Your task to perform on an android device: turn on wifi Image 0: 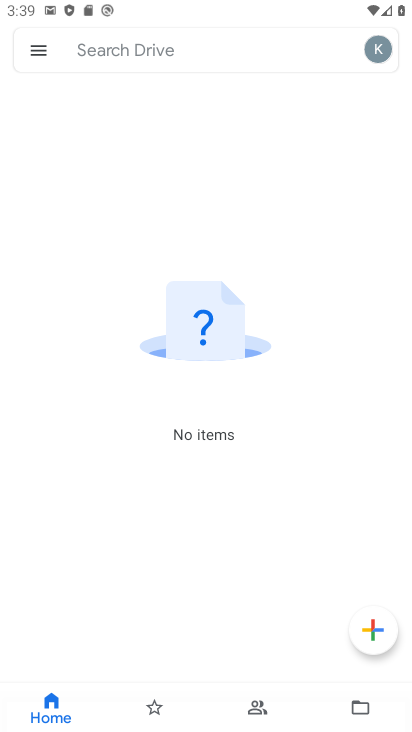
Step 0: press back button
Your task to perform on an android device: turn on wifi Image 1: 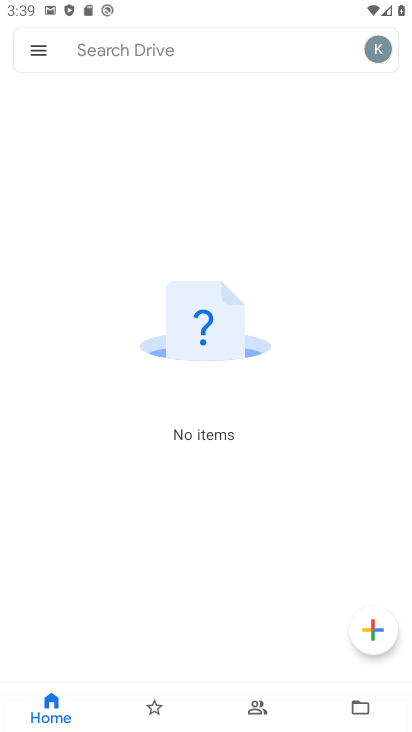
Step 1: press back button
Your task to perform on an android device: turn on wifi Image 2: 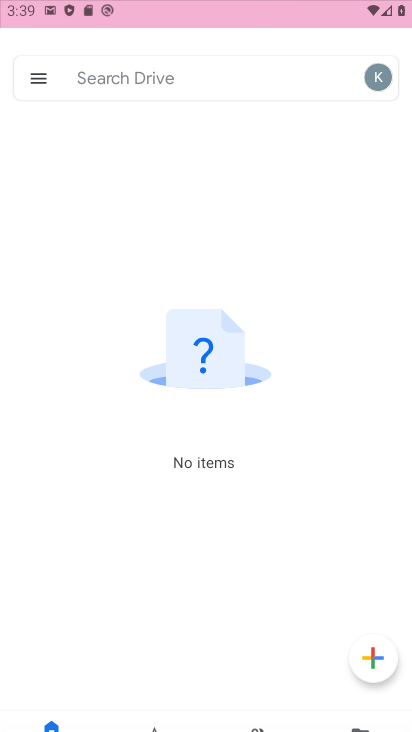
Step 2: press home button
Your task to perform on an android device: turn on wifi Image 3: 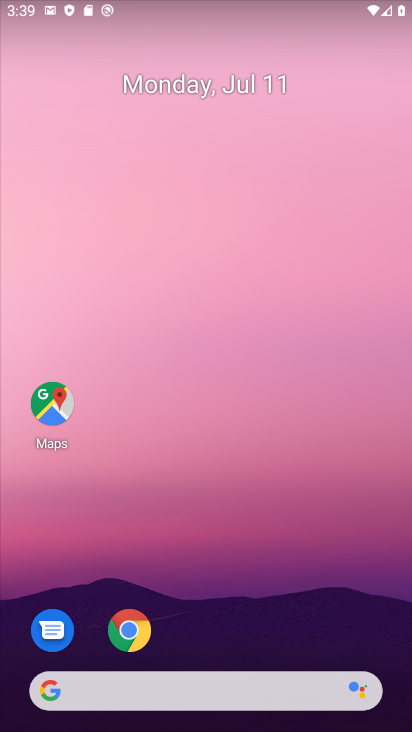
Step 3: press back button
Your task to perform on an android device: turn on wifi Image 4: 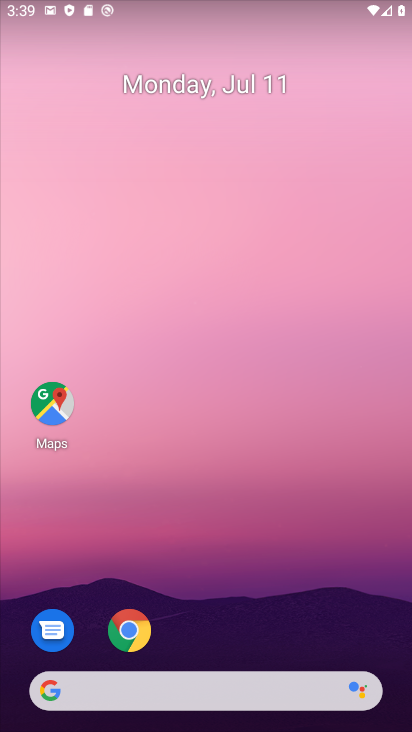
Step 4: press home button
Your task to perform on an android device: turn on wifi Image 5: 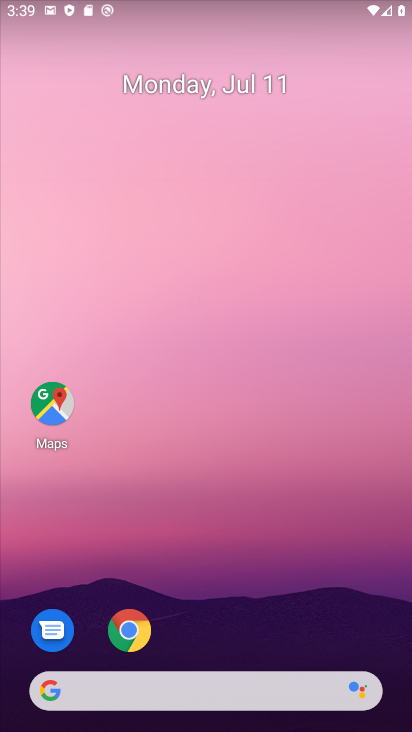
Step 5: drag from (328, 626) to (255, 118)
Your task to perform on an android device: turn on wifi Image 6: 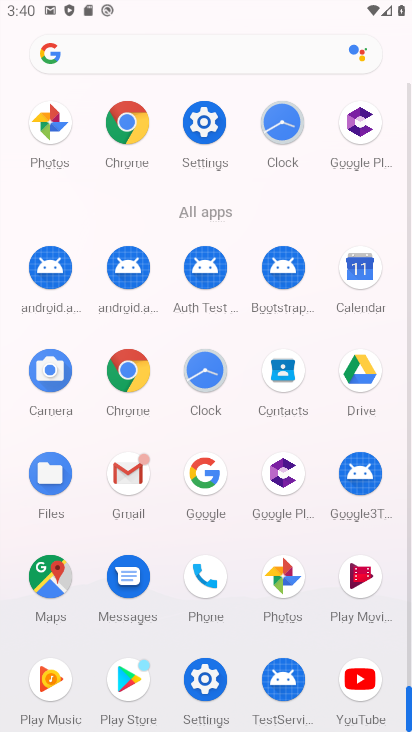
Step 6: click (202, 120)
Your task to perform on an android device: turn on wifi Image 7: 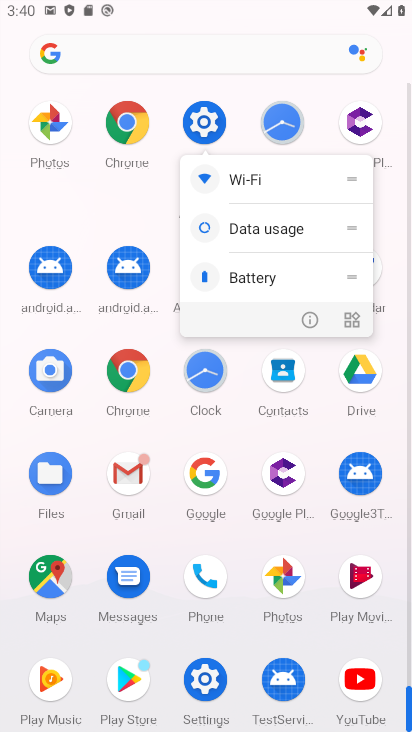
Step 7: click (204, 120)
Your task to perform on an android device: turn on wifi Image 8: 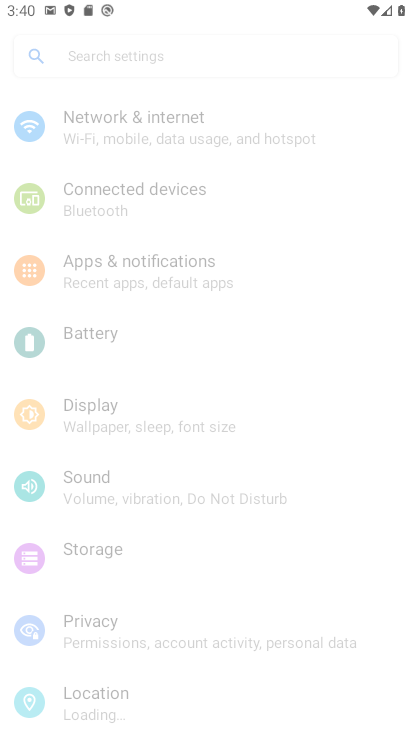
Step 8: click (204, 120)
Your task to perform on an android device: turn on wifi Image 9: 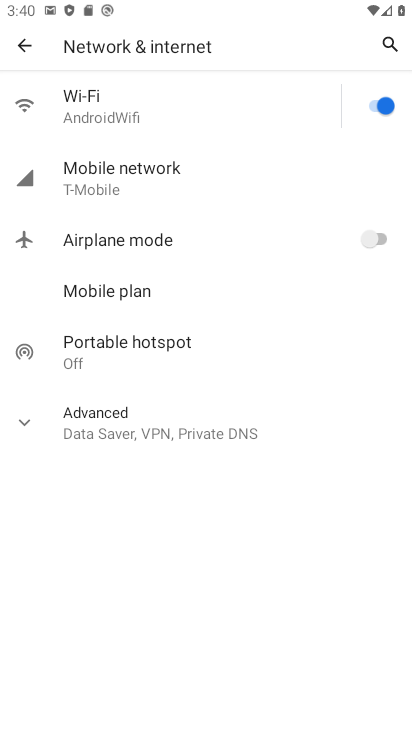
Step 9: task complete